Your task to perform on an android device: Search for pizza restaurants on Maps Image 0: 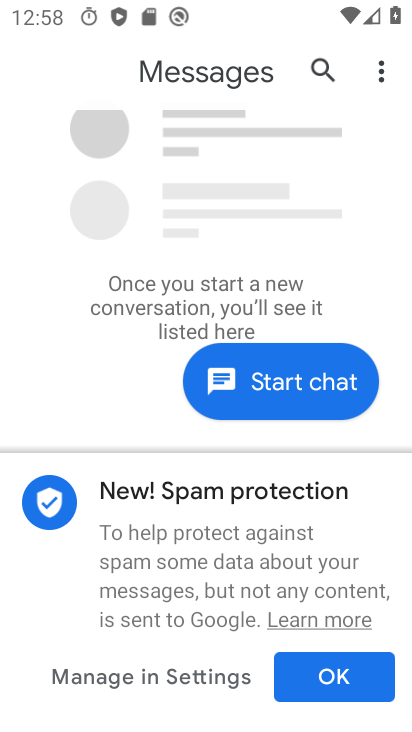
Step 0: press home button
Your task to perform on an android device: Search for pizza restaurants on Maps Image 1: 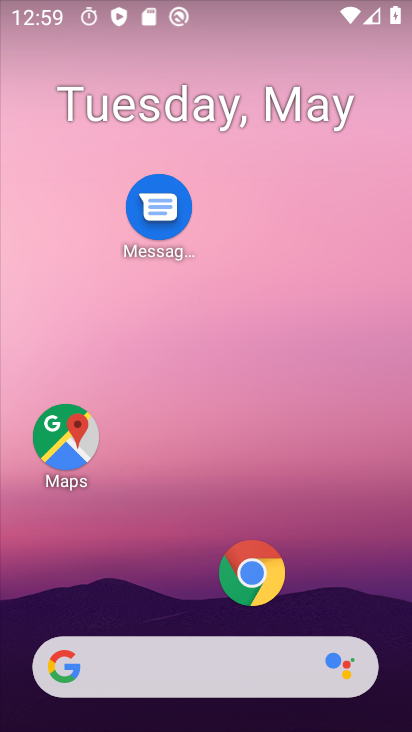
Step 1: click (82, 440)
Your task to perform on an android device: Search for pizza restaurants on Maps Image 2: 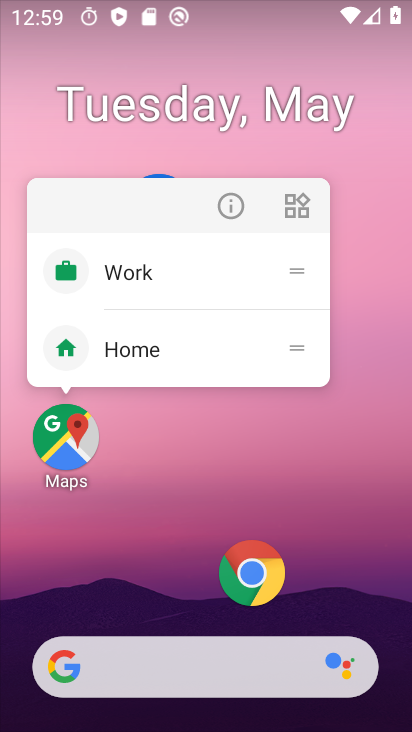
Step 2: click (82, 440)
Your task to perform on an android device: Search for pizza restaurants on Maps Image 3: 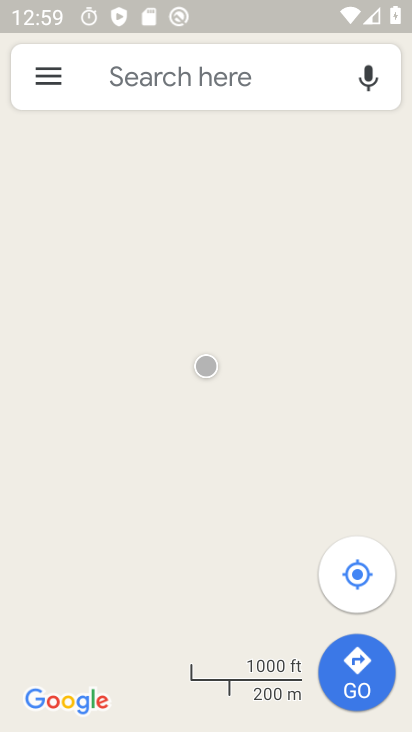
Step 3: click (191, 66)
Your task to perform on an android device: Search for pizza restaurants on Maps Image 4: 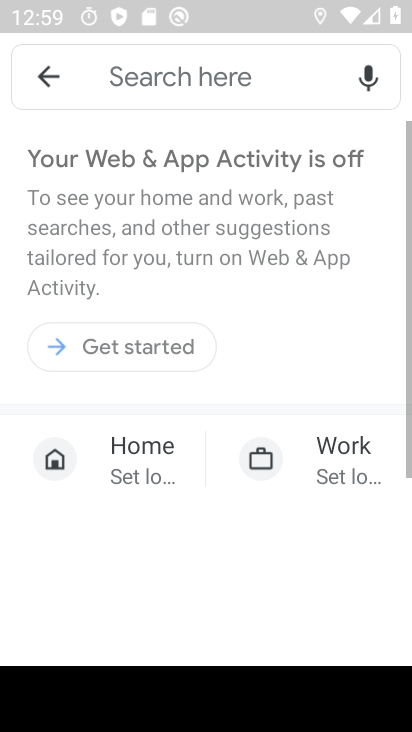
Step 4: type "Pizza restaurants"
Your task to perform on an android device: Search for pizza restaurants on Maps Image 5: 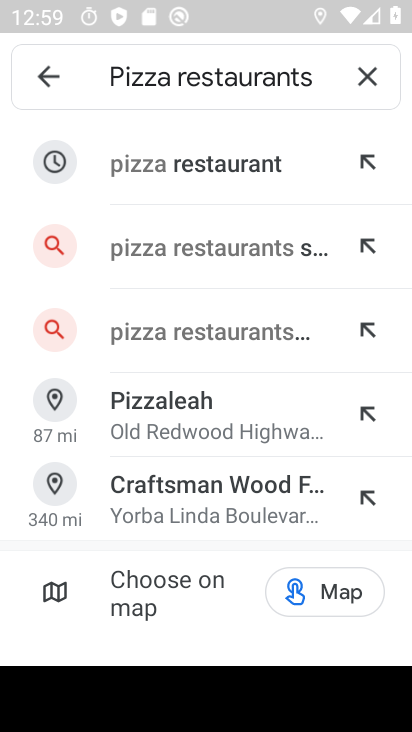
Step 5: click (226, 161)
Your task to perform on an android device: Search for pizza restaurants on Maps Image 6: 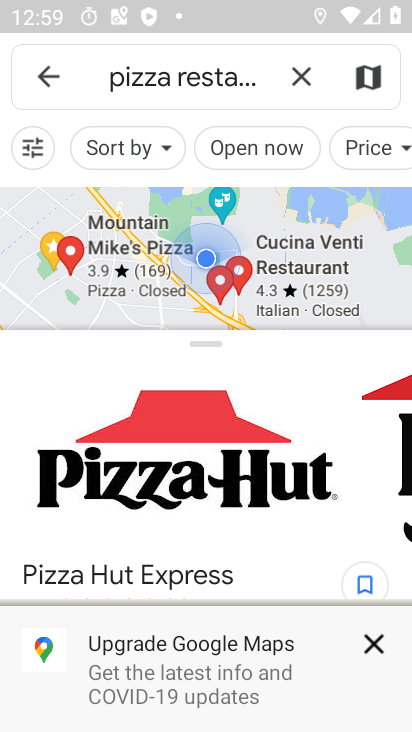
Step 6: click (376, 652)
Your task to perform on an android device: Search for pizza restaurants on Maps Image 7: 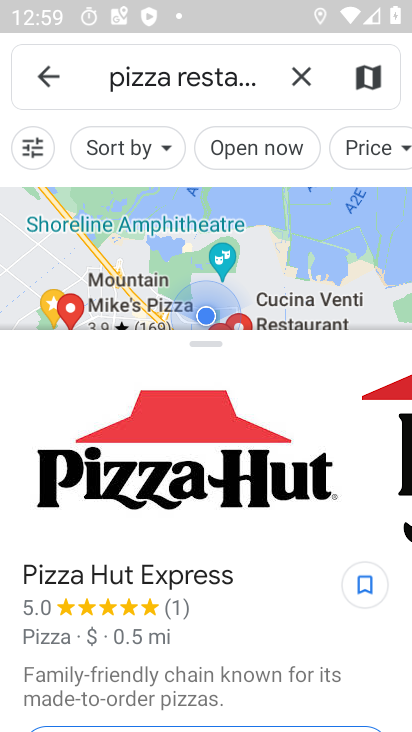
Step 7: task complete